Your task to perform on an android device: read, delete, or share a saved page in the chrome app Image 0: 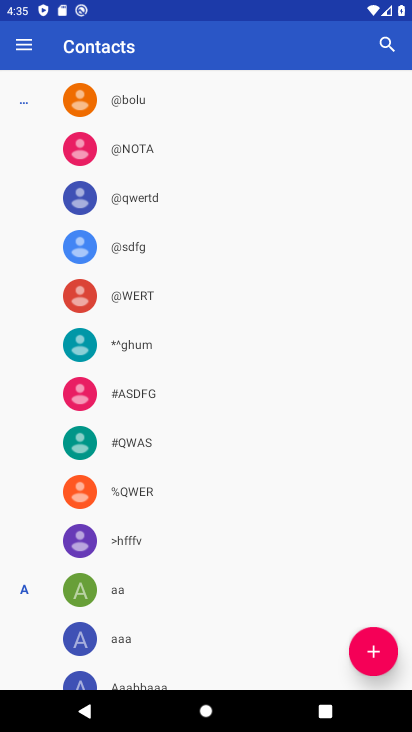
Step 0: press back button
Your task to perform on an android device: read, delete, or share a saved page in the chrome app Image 1: 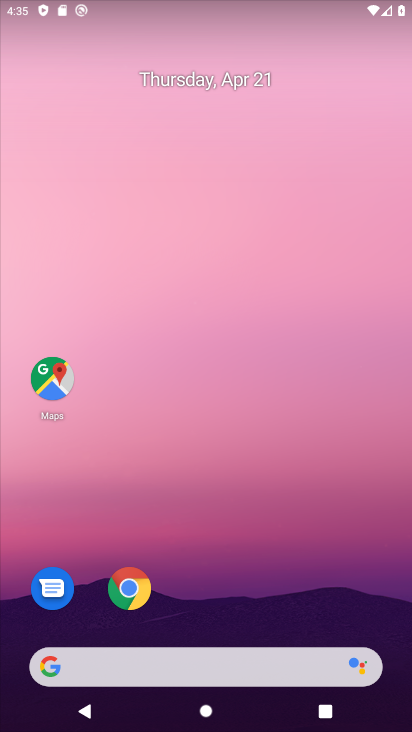
Step 1: click (135, 581)
Your task to perform on an android device: read, delete, or share a saved page in the chrome app Image 2: 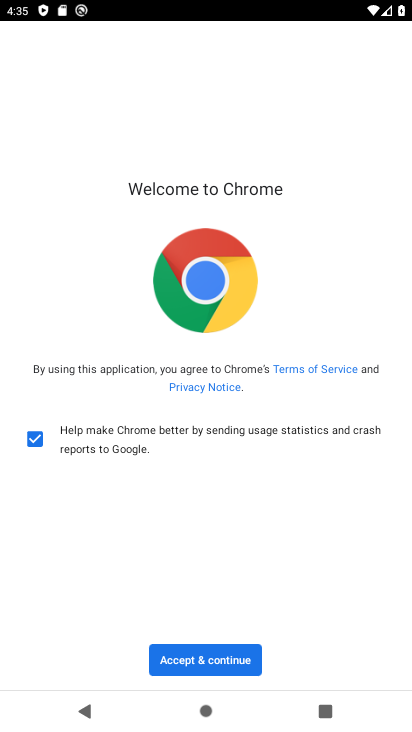
Step 2: click (236, 655)
Your task to perform on an android device: read, delete, or share a saved page in the chrome app Image 3: 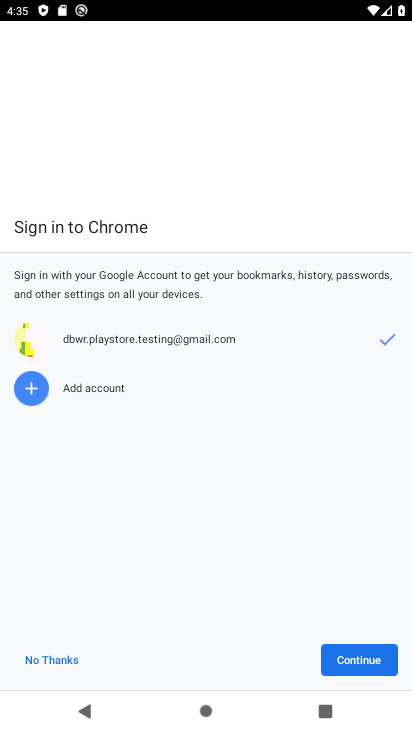
Step 3: click (340, 659)
Your task to perform on an android device: read, delete, or share a saved page in the chrome app Image 4: 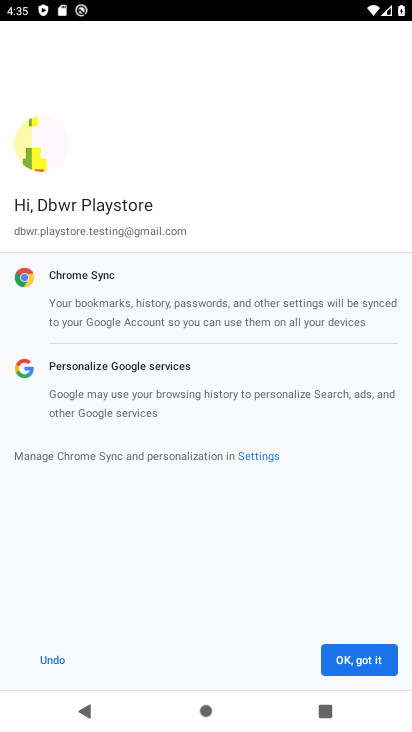
Step 4: click (341, 659)
Your task to perform on an android device: read, delete, or share a saved page in the chrome app Image 5: 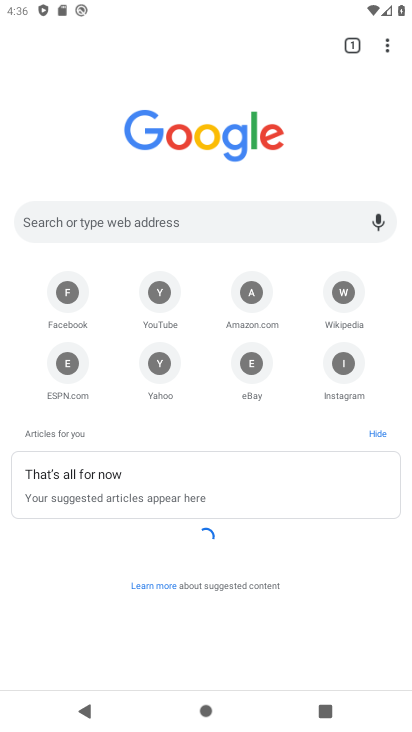
Step 5: drag from (387, 40) to (252, 289)
Your task to perform on an android device: read, delete, or share a saved page in the chrome app Image 6: 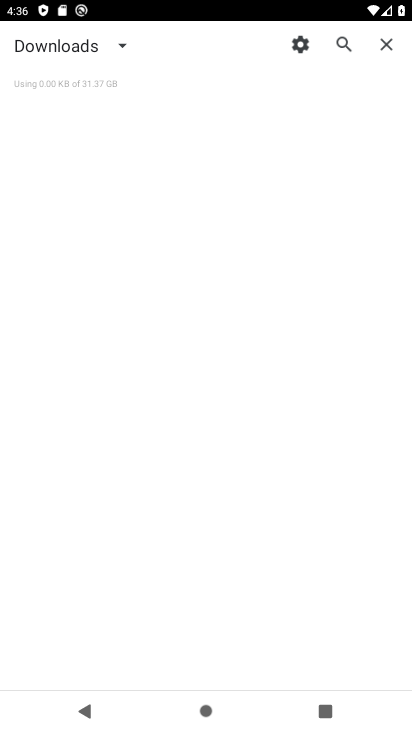
Step 6: click (117, 45)
Your task to perform on an android device: read, delete, or share a saved page in the chrome app Image 7: 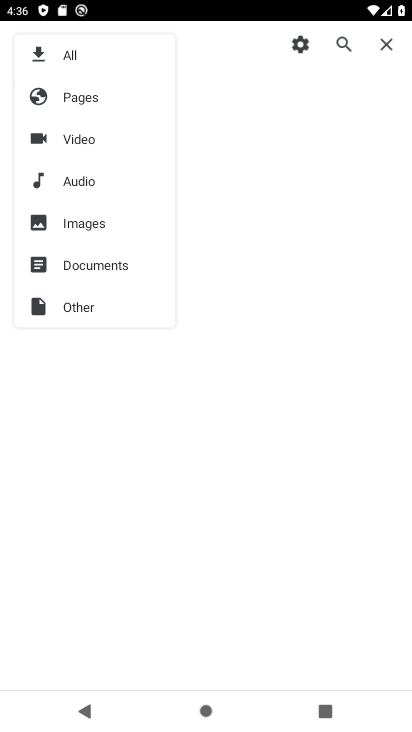
Step 7: click (94, 98)
Your task to perform on an android device: read, delete, or share a saved page in the chrome app Image 8: 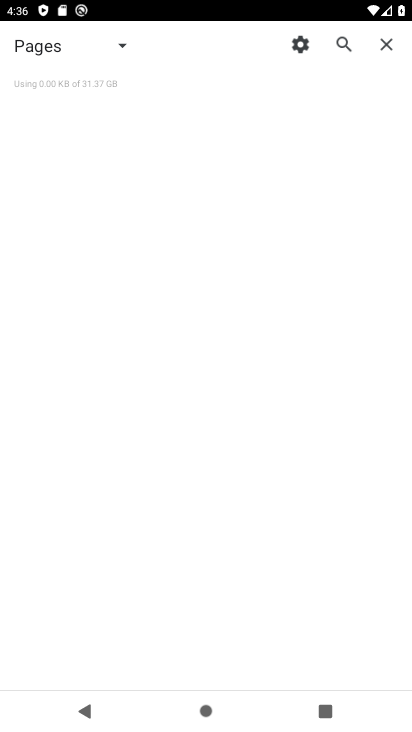
Step 8: task complete